Your task to perform on an android device: Clear the cart on ebay. Add dell alienware to the cart on ebay Image 0: 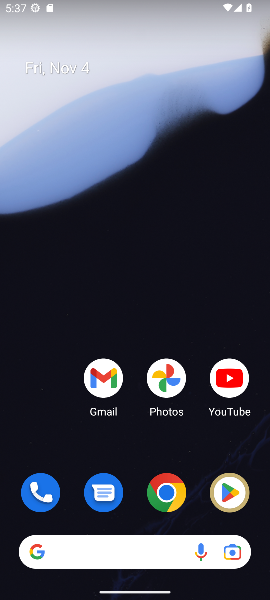
Step 0: drag from (127, 452) to (143, 5)
Your task to perform on an android device: Clear the cart on ebay. Add dell alienware to the cart on ebay Image 1: 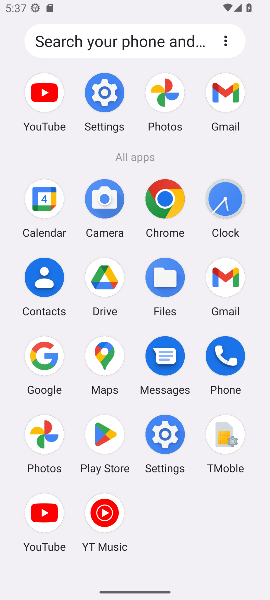
Step 1: click (163, 194)
Your task to perform on an android device: Clear the cart on ebay. Add dell alienware to the cart on ebay Image 2: 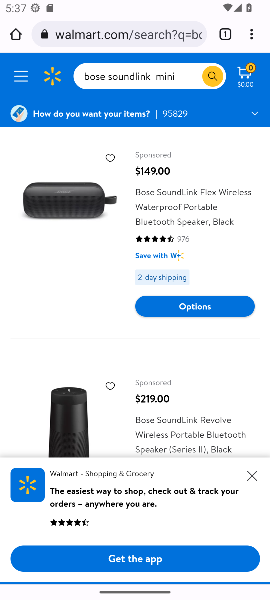
Step 2: click (161, 70)
Your task to perform on an android device: Clear the cart on ebay. Add dell alienware to the cart on ebay Image 3: 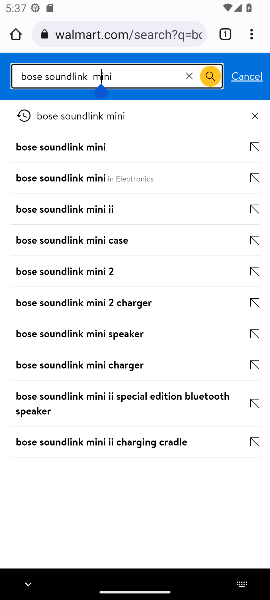
Step 3: click (135, 29)
Your task to perform on an android device: Clear the cart on ebay. Add dell alienware to the cart on ebay Image 4: 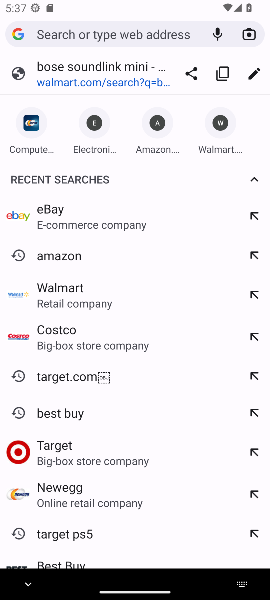
Step 4: type "ebay.com"
Your task to perform on an android device: Clear the cart on ebay. Add dell alienware to the cart on ebay Image 5: 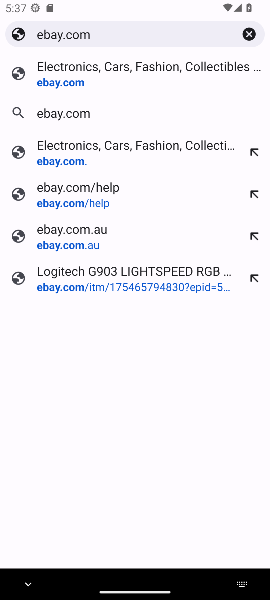
Step 5: press enter
Your task to perform on an android device: Clear the cart on ebay. Add dell alienware to the cart on ebay Image 6: 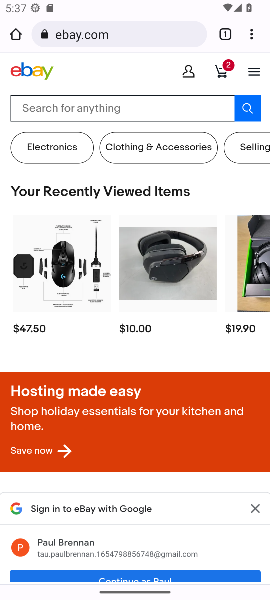
Step 6: click (220, 65)
Your task to perform on an android device: Clear the cart on ebay. Add dell alienware to the cart on ebay Image 7: 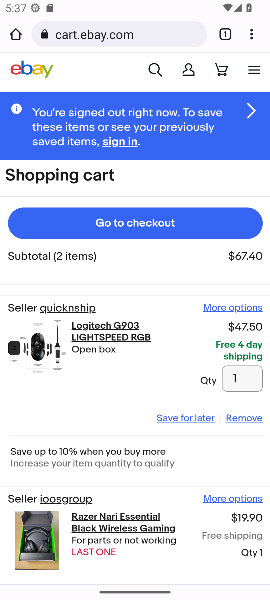
Step 7: click (252, 416)
Your task to perform on an android device: Clear the cart on ebay. Add dell alienware to the cart on ebay Image 8: 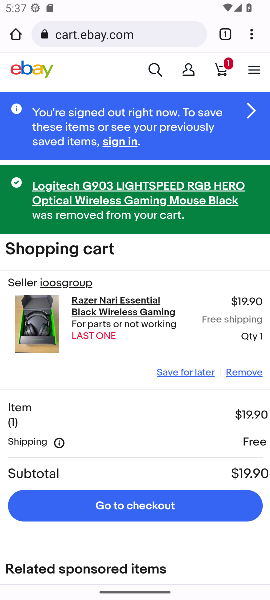
Step 8: click (235, 375)
Your task to perform on an android device: Clear the cart on ebay. Add dell alienware to the cart on ebay Image 9: 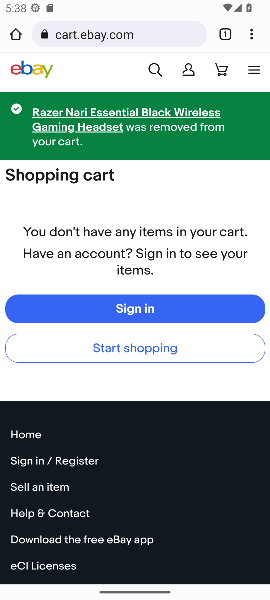
Step 9: click (152, 69)
Your task to perform on an android device: Clear the cart on ebay. Add dell alienware to the cart on ebay Image 10: 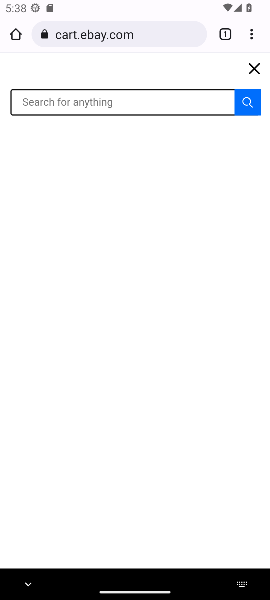
Step 10: type "dell alienware"
Your task to perform on an android device: Clear the cart on ebay. Add dell alienware to the cart on ebay Image 11: 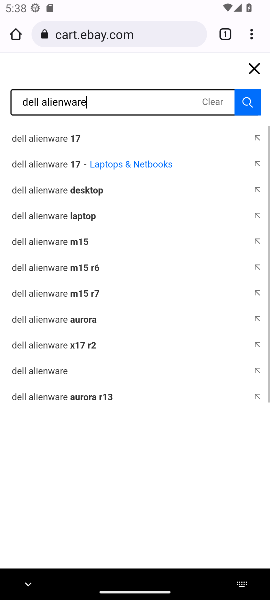
Step 11: press enter
Your task to perform on an android device: Clear the cart on ebay. Add dell alienware to the cart on ebay Image 12: 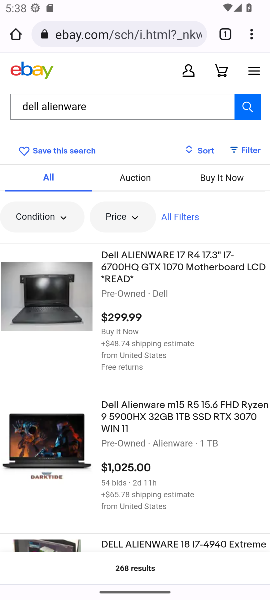
Step 12: click (75, 291)
Your task to perform on an android device: Clear the cart on ebay. Add dell alienware to the cart on ebay Image 13: 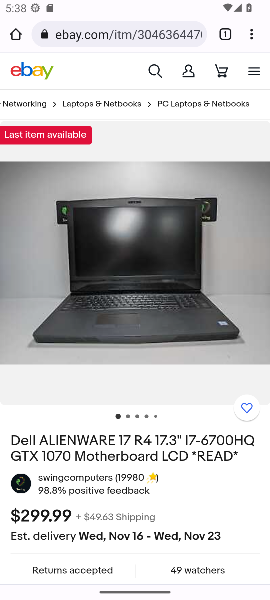
Step 13: drag from (183, 525) to (194, 91)
Your task to perform on an android device: Clear the cart on ebay. Add dell alienware to the cart on ebay Image 14: 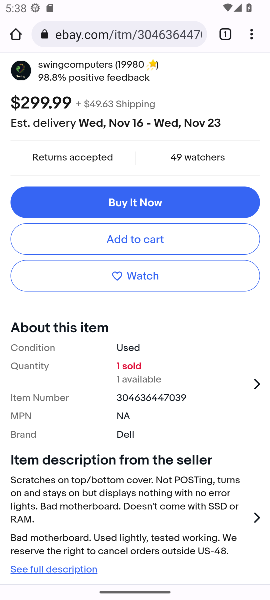
Step 14: click (137, 246)
Your task to perform on an android device: Clear the cart on ebay. Add dell alienware to the cart on ebay Image 15: 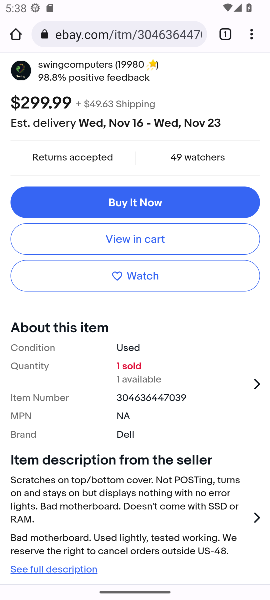
Step 15: task complete